Your task to perform on an android device: What's the weather going to be this weekend? Image 0: 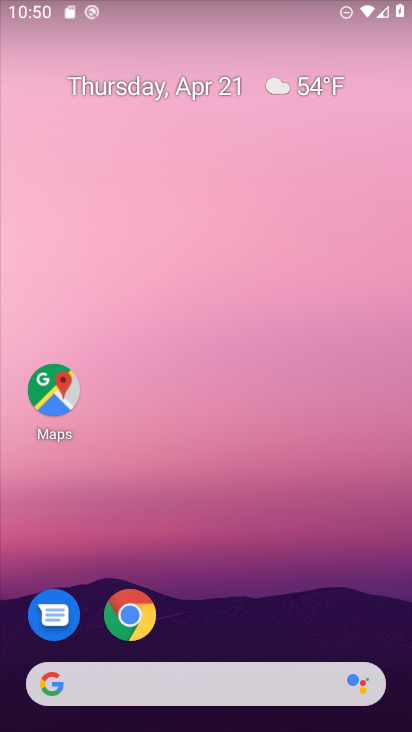
Step 0: drag from (247, 619) to (289, 215)
Your task to perform on an android device: What's the weather going to be this weekend? Image 1: 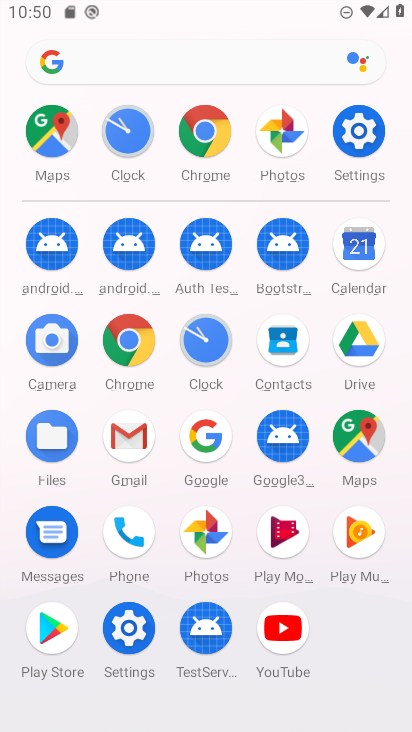
Step 1: click (114, 72)
Your task to perform on an android device: What's the weather going to be this weekend? Image 2: 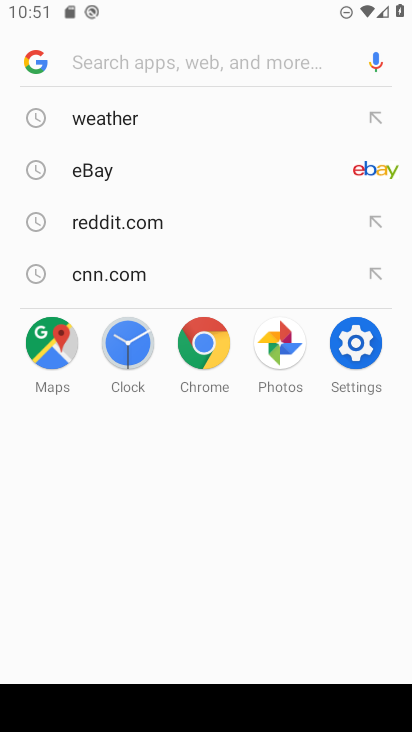
Step 2: type "what's the weather going to be this weekend"
Your task to perform on an android device: What's the weather going to be this weekend? Image 3: 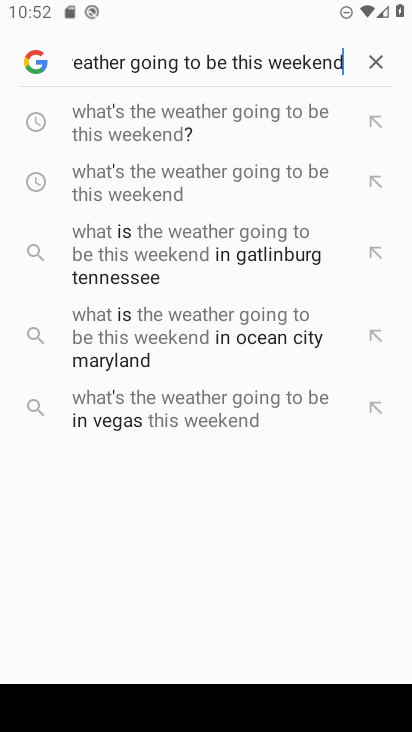
Step 3: click (217, 126)
Your task to perform on an android device: What's the weather going to be this weekend? Image 4: 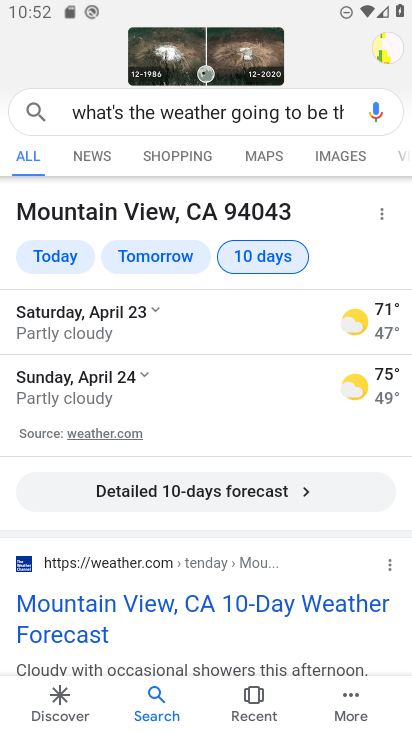
Step 4: task complete